Your task to perform on an android device: Open maps Image 0: 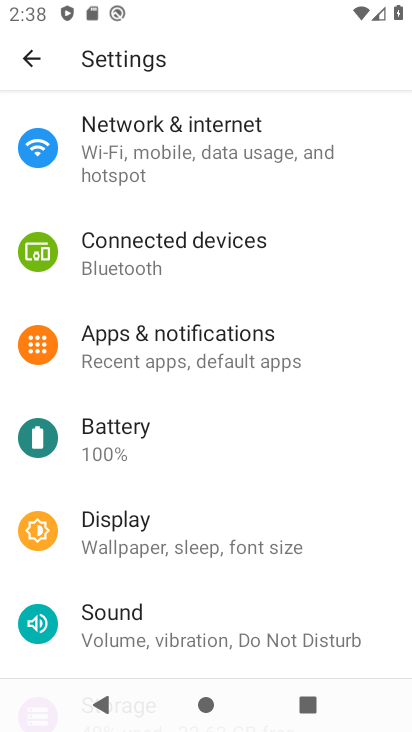
Step 0: press home button
Your task to perform on an android device: Open maps Image 1: 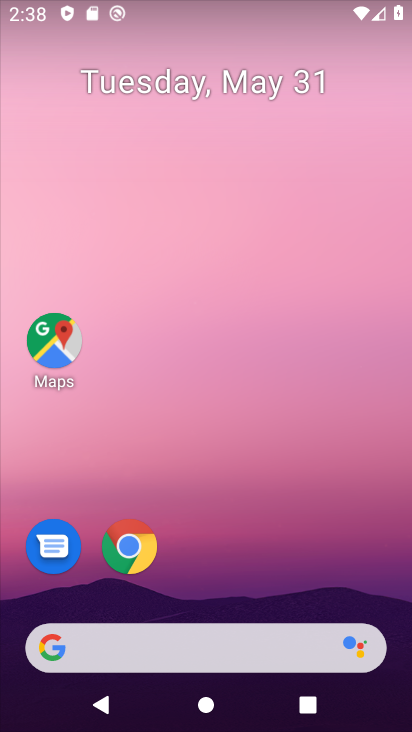
Step 1: click (55, 328)
Your task to perform on an android device: Open maps Image 2: 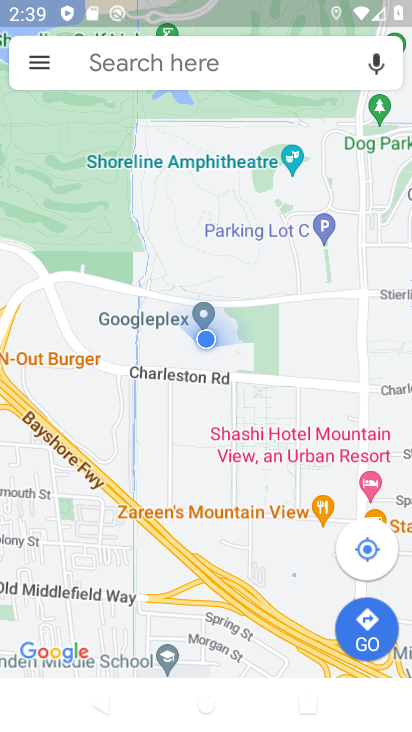
Step 2: task complete